Your task to perform on an android device: Open Google Maps Image 0: 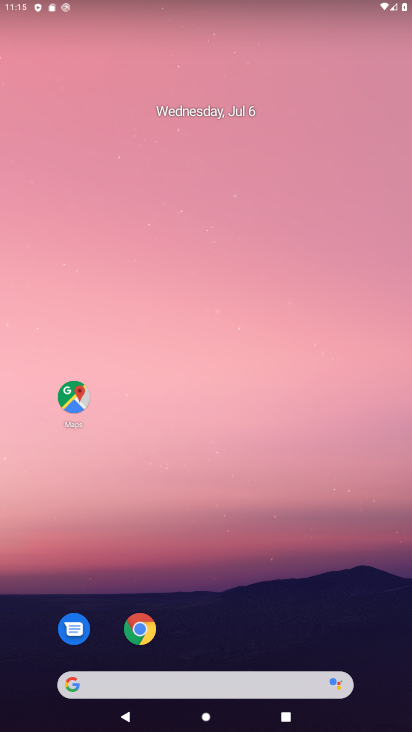
Step 0: click (73, 397)
Your task to perform on an android device: Open Google Maps Image 1: 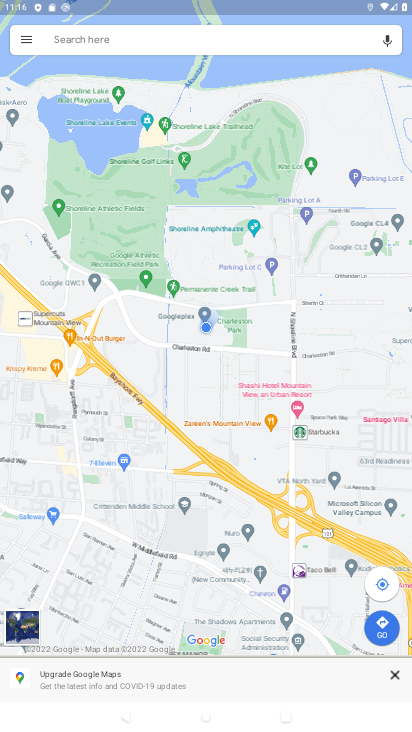
Step 1: task complete